Your task to perform on an android device: change notifications settings Image 0: 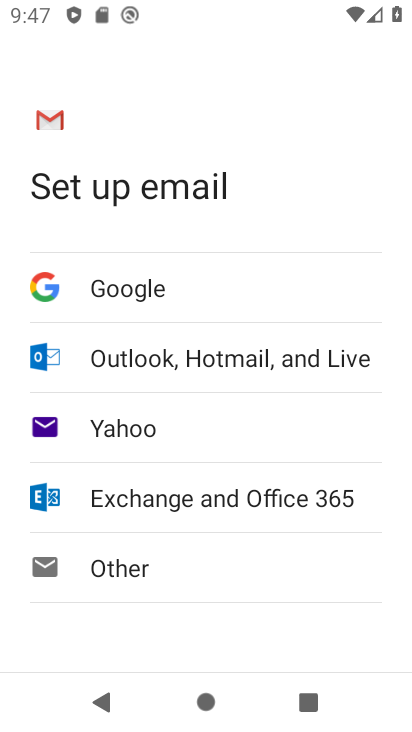
Step 0: press back button
Your task to perform on an android device: change notifications settings Image 1: 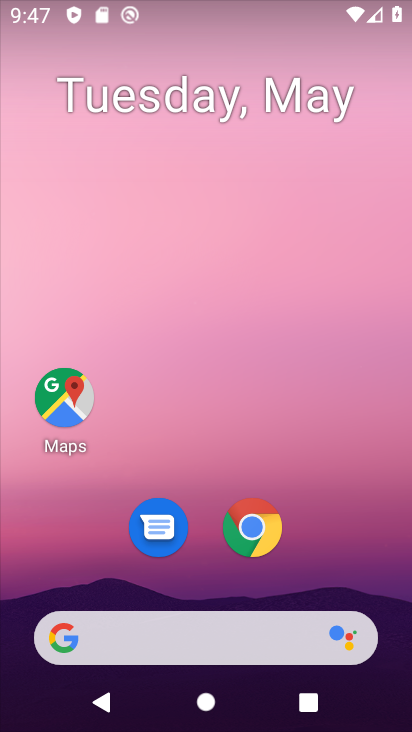
Step 1: drag from (332, 566) to (169, 158)
Your task to perform on an android device: change notifications settings Image 2: 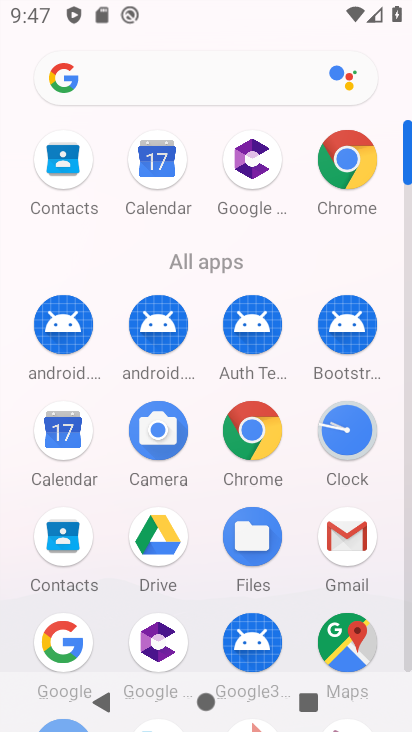
Step 2: drag from (208, 609) to (216, 405)
Your task to perform on an android device: change notifications settings Image 3: 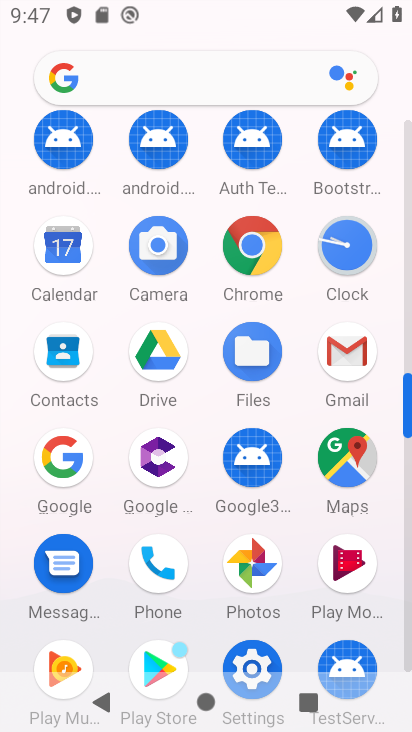
Step 3: drag from (214, 591) to (184, 401)
Your task to perform on an android device: change notifications settings Image 4: 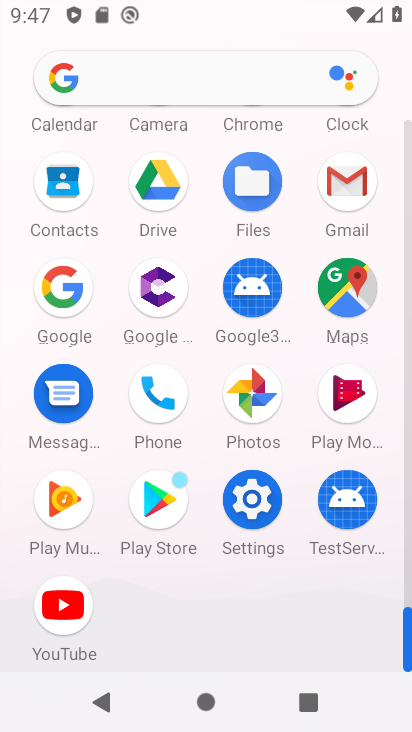
Step 4: click (251, 499)
Your task to perform on an android device: change notifications settings Image 5: 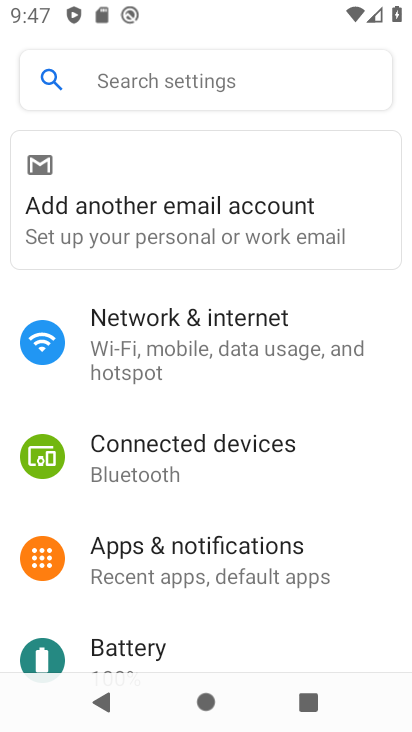
Step 5: click (189, 547)
Your task to perform on an android device: change notifications settings Image 6: 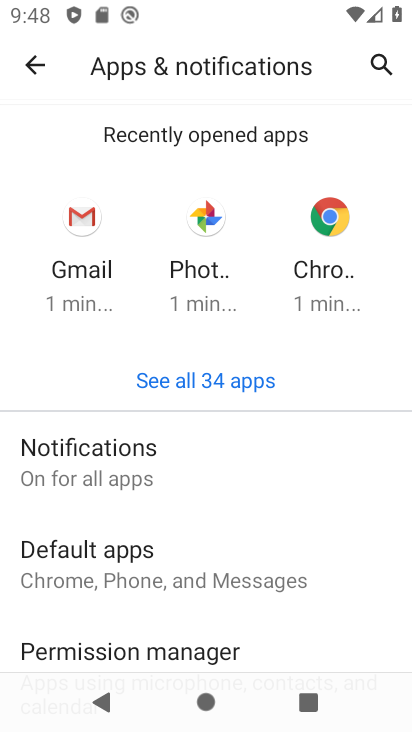
Step 6: click (68, 461)
Your task to perform on an android device: change notifications settings Image 7: 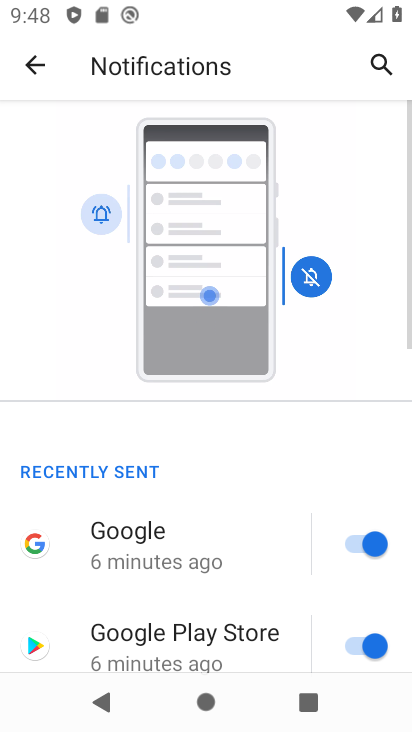
Step 7: drag from (199, 616) to (274, 355)
Your task to perform on an android device: change notifications settings Image 8: 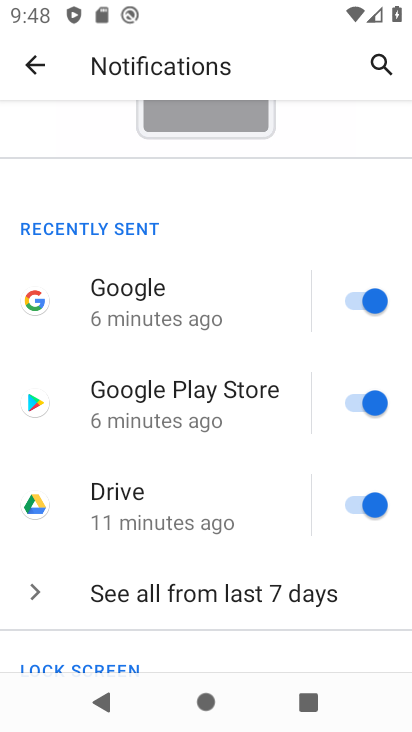
Step 8: drag from (185, 610) to (277, 367)
Your task to perform on an android device: change notifications settings Image 9: 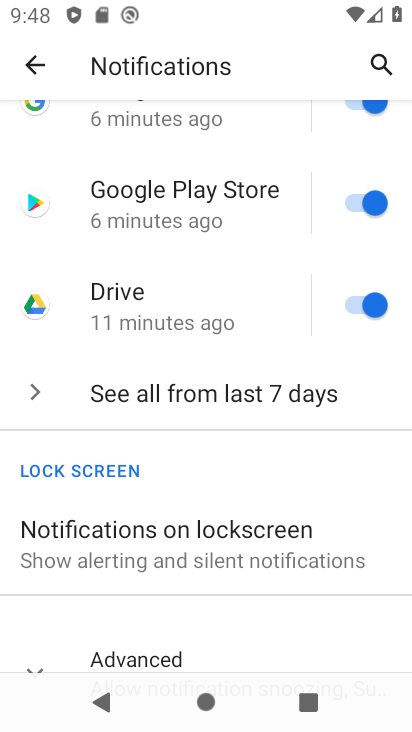
Step 9: drag from (215, 578) to (258, 414)
Your task to perform on an android device: change notifications settings Image 10: 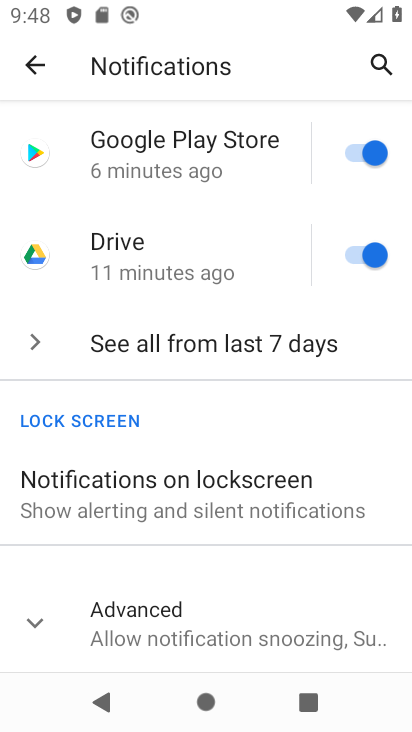
Step 10: click (195, 628)
Your task to perform on an android device: change notifications settings Image 11: 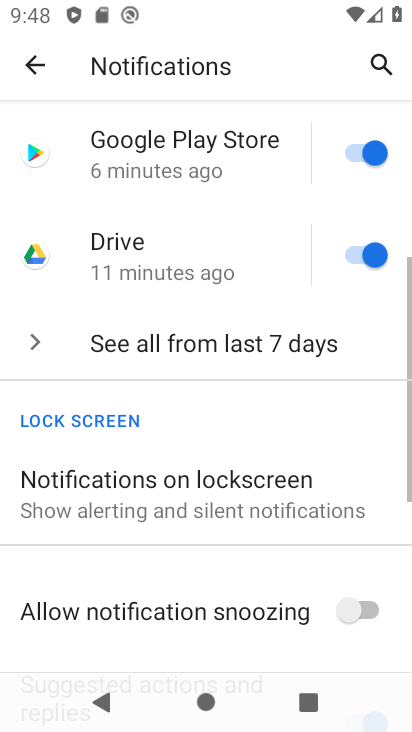
Step 11: drag from (187, 633) to (262, 482)
Your task to perform on an android device: change notifications settings Image 12: 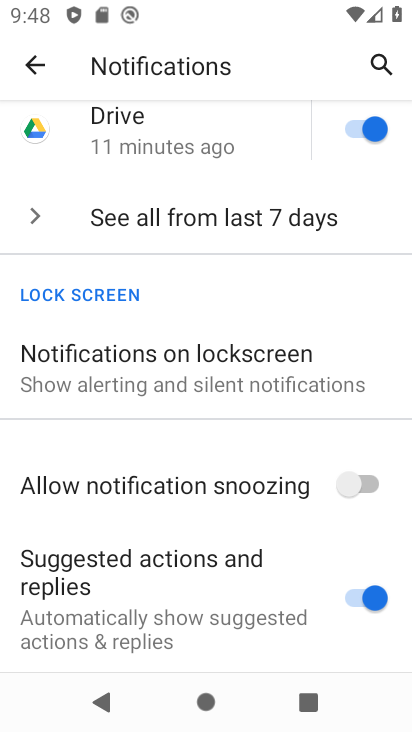
Step 12: drag from (271, 534) to (307, 478)
Your task to perform on an android device: change notifications settings Image 13: 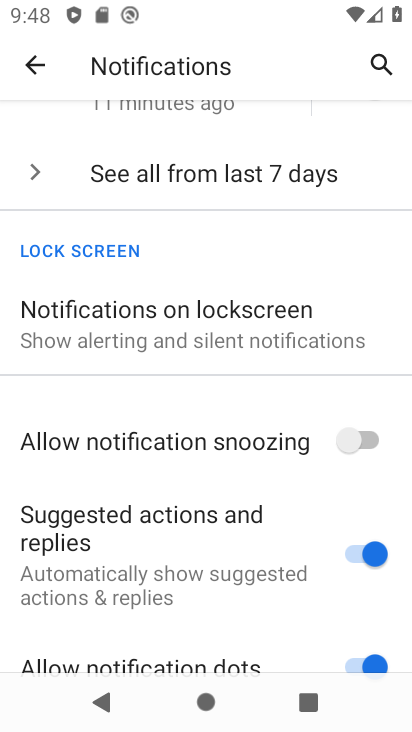
Step 13: drag from (238, 622) to (304, 525)
Your task to perform on an android device: change notifications settings Image 14: 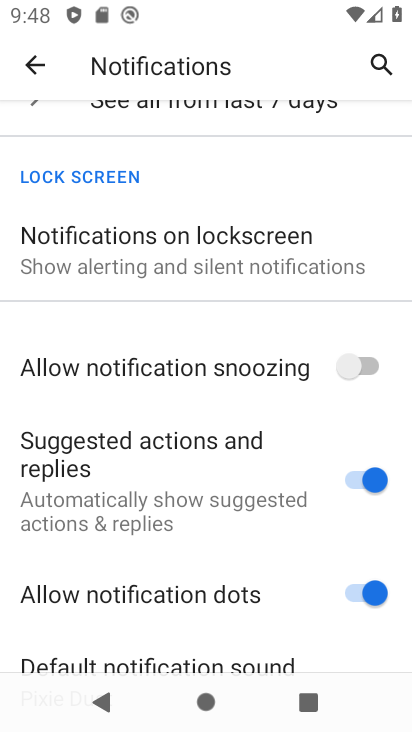
Step 14: click (354, 589)
Your task to perform on an android device: change notifications settings Image 15: 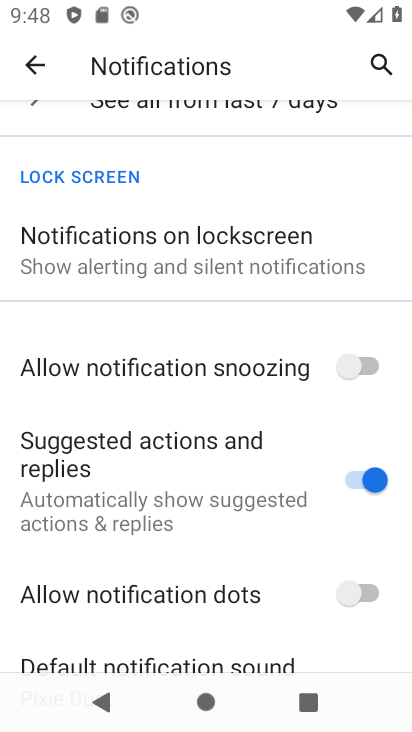
Step 15: task complete